Your task to perform on an android device: Show the shopping cart on walmart. Search for usb-a to usb-b on walmart, select the first entry, add it to the cart, then select checkout. Image 0: 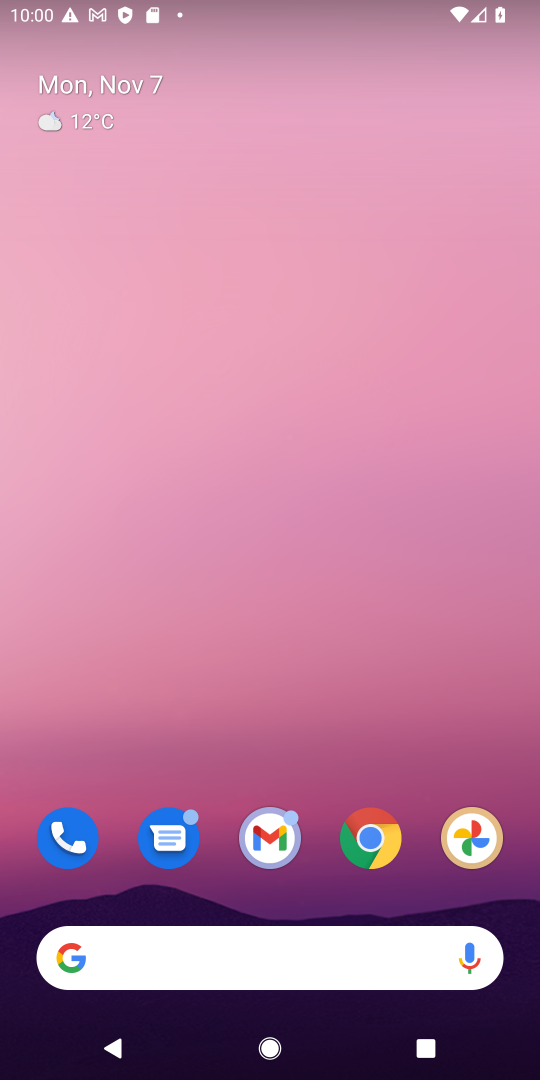
Step 0: click (372, 849)
Your task to perform on an android device: Show the shopping cart on walmart. Search for usb-a to usb-b on walmart, select the first entry, add it to the cart, then select checkout. Image 1: 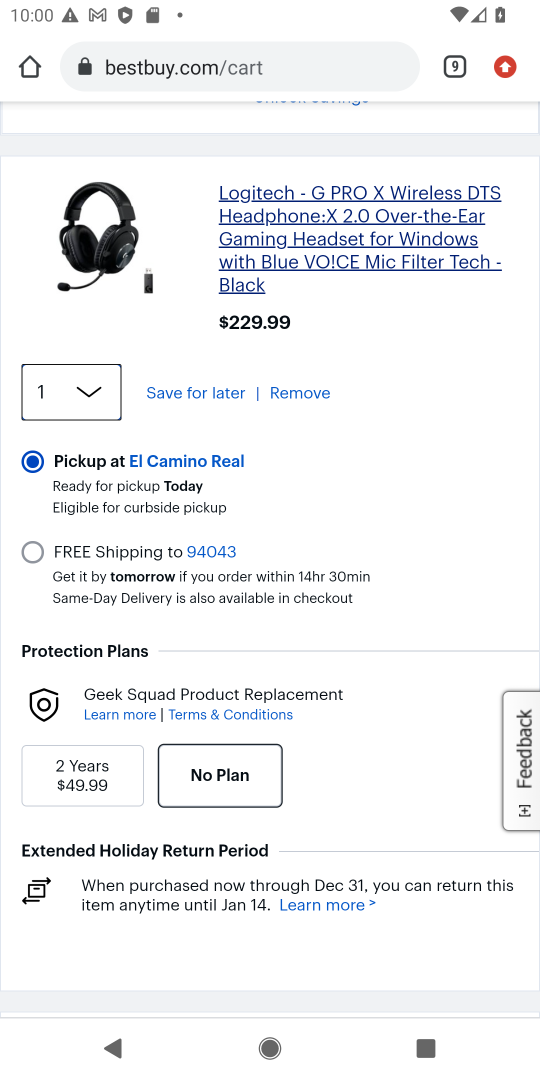
Step 1: click (447, 54)
Your task to perform on an android device: Show the shopping cart on walmart. Search for usb-a to usb-b on walmart, select the first entry, add it to the cart, then select checkout. Image 2: 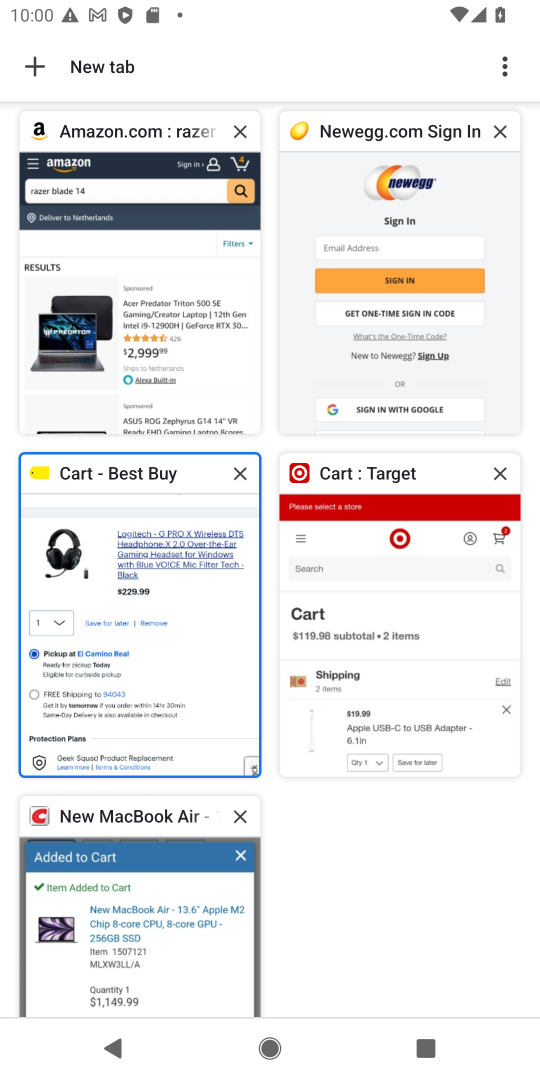
Step 2: drag from (258, 271) to (212, 792)
Your task to perform on an android device: Show the shopping cart on walmart. Search for usb-a to usb-b on walmart, select the first entry, add it to the cart, then select checkout. Image 3: 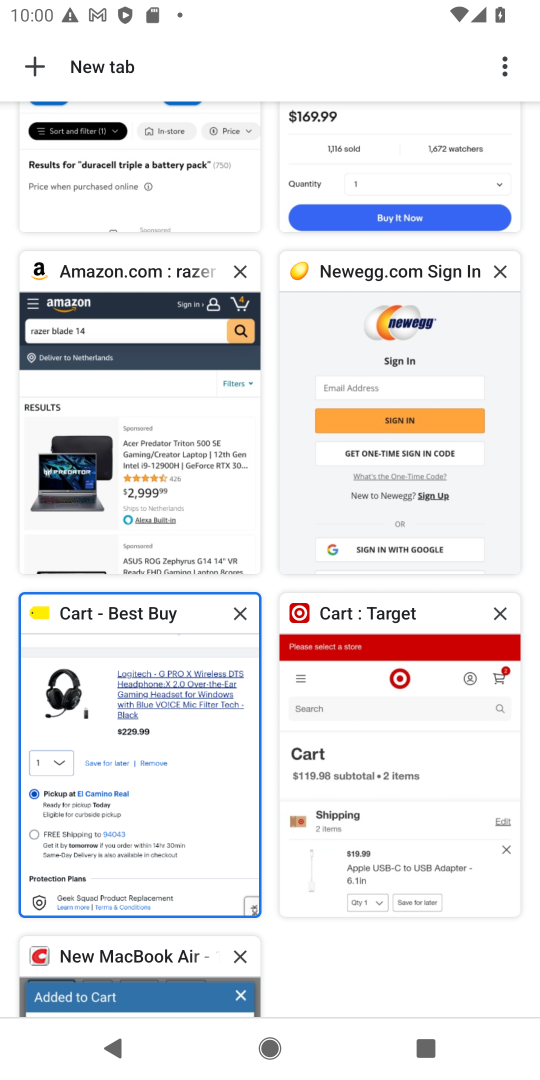
Step 3: drag from (322, 299) to (276, 971)
Your task to perform on an android device: Show the shopping cart on walmart. Search for usb-a to usb-b on walmart, select the first entry, add it to the cart, then select checkout. Image 4: 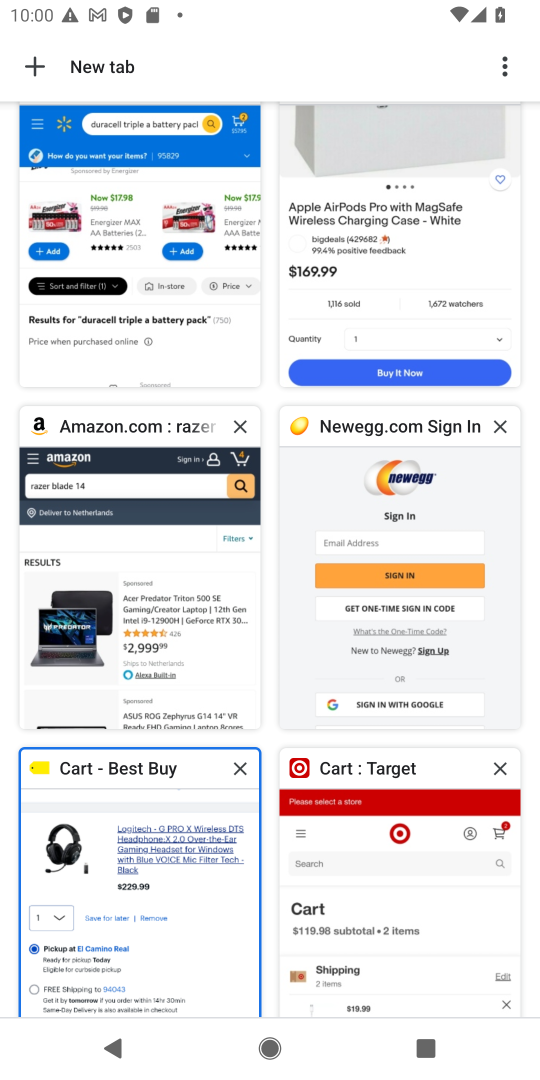
Step 4: drag from (487, 369) to (448, 871)
Your task to perform on an android device: Show the shopping cart on walmart. Search for usb-a to usb-b on walmart, select the first entry, add it to the cart, then select checkout. Image 5: 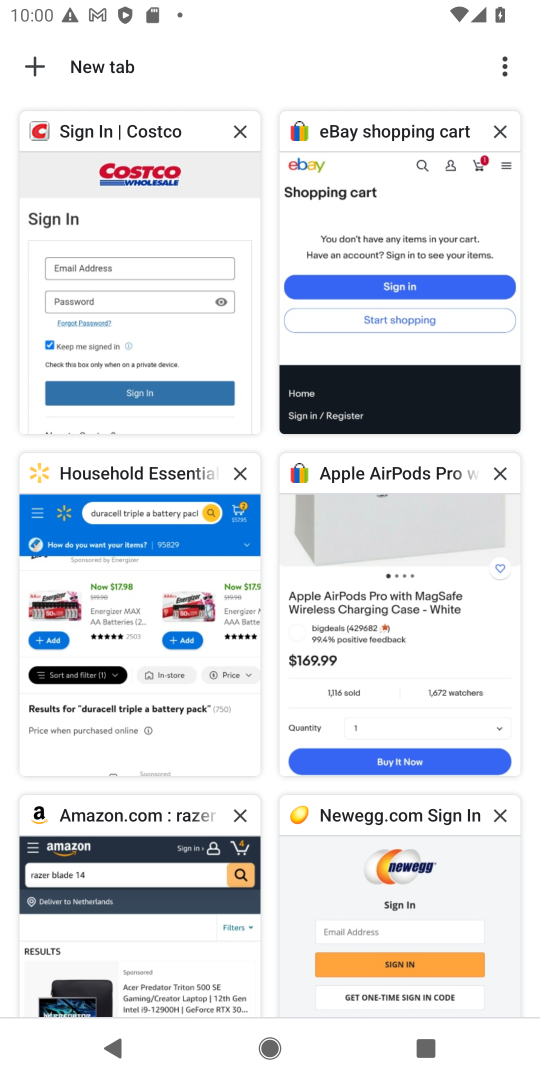
Step 5: click (157, 570)
Your task to perform on an android device: Show the shopping cart on walmart. Search for usb-a to usb-b on walmart, select the first entry, add it to the cart, then select checkout. Image 6: 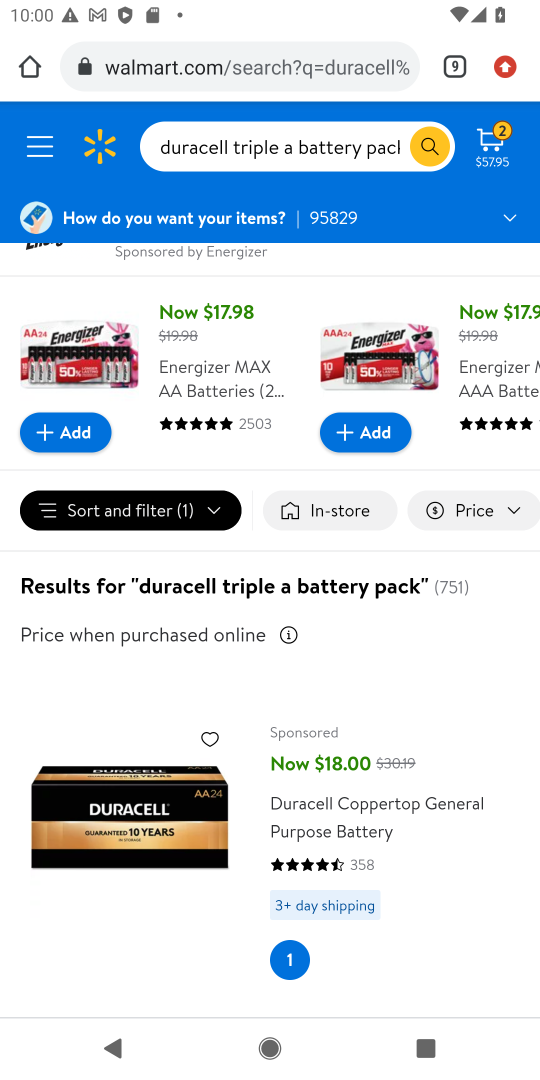
Step 6: click (363, 157)
Your task to perform on an android device: Show the shopping cart on walmart. Search for usb-a to usb-b on walmart, select the first entry, add it to the cart, then select checkout. Image 7: 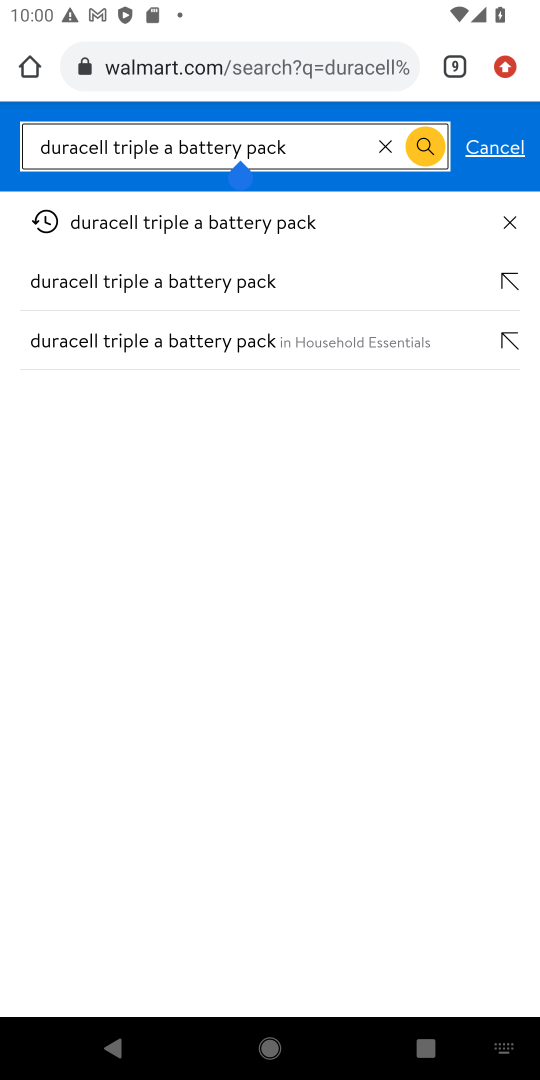
Step 7: click (386, 148)
Your task to perform on an android device: Show the shopping cart on walmart. Search for usb-a to usb-b on walmart, select the first entry, add it to the cart, then select checkout. Image 8: 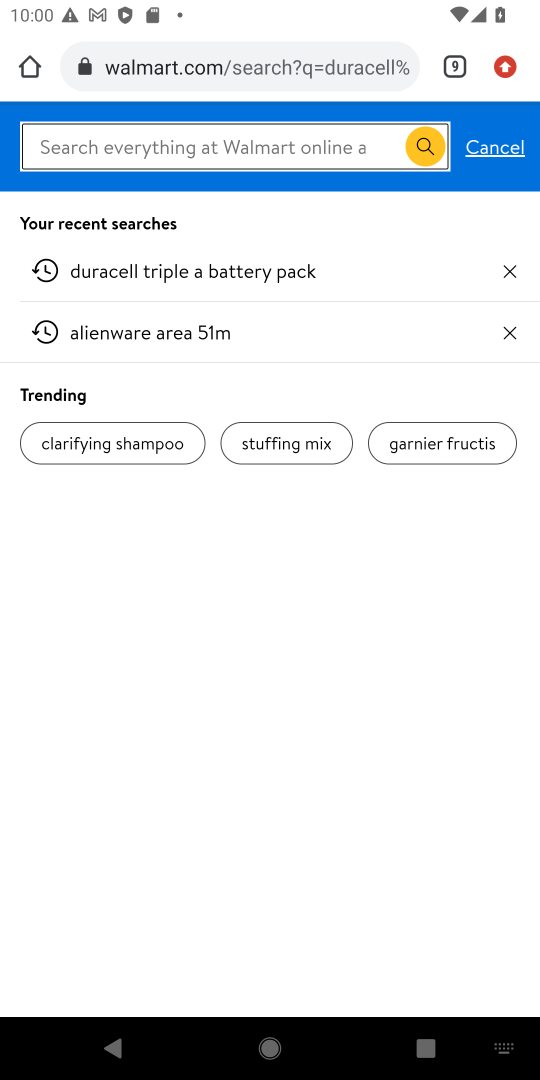
Step 8: type "usb-a to usb-b"
Your task to perform on an android device: Show the shopping cart on walmart. Search for usb-a to usb-b on walmart, select the first entry, add it to the cart, then select checkout. Image 9: 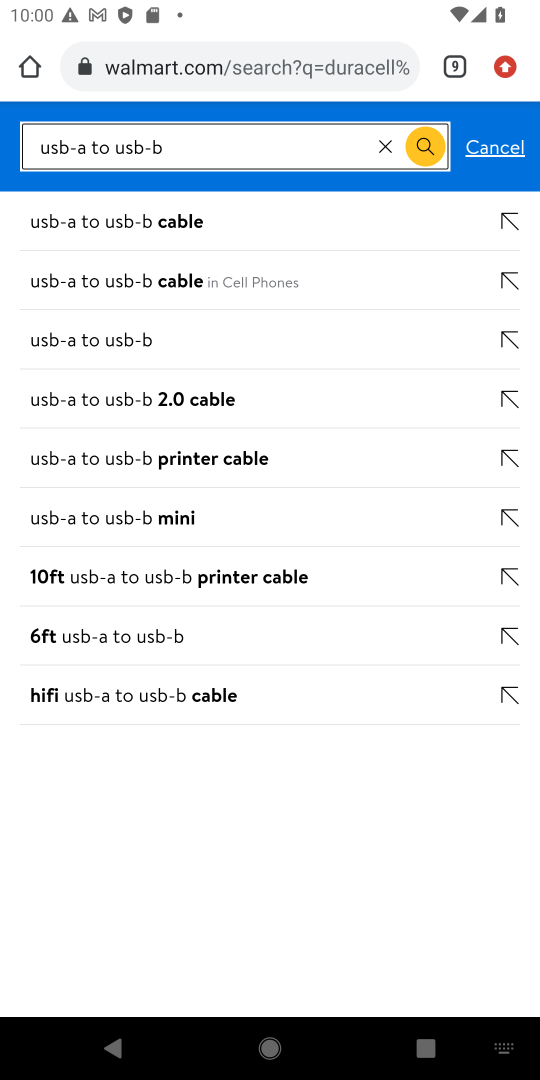
Step 9: click (47, 277)
Your task to perform on an android device: Show the shopping cart on walmart. Search for usb-a to usb-b on walmart, select the first entry, add it to the cart, then select checkout. Image 10: 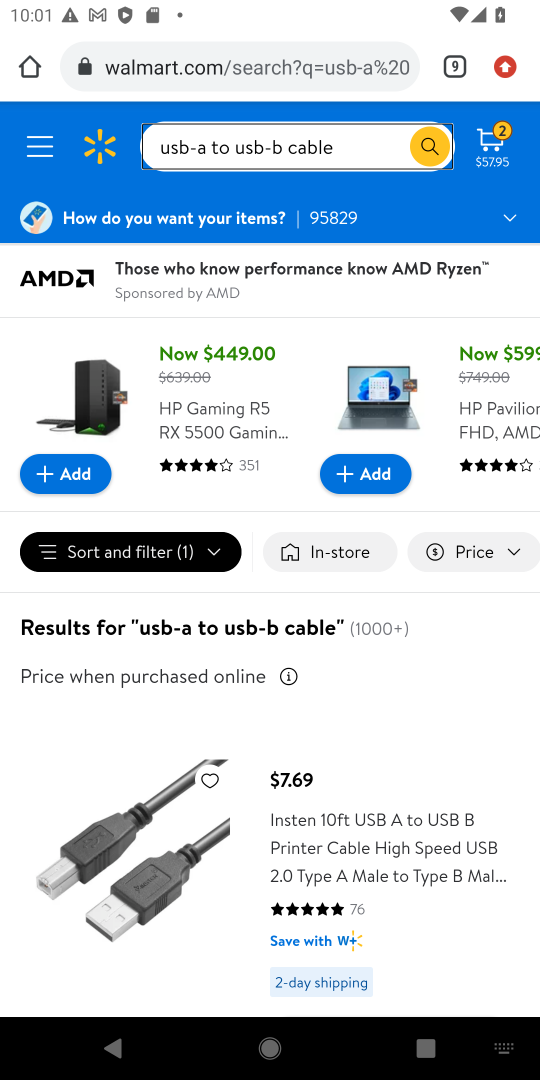
Step 10: drag from (459, 878) to (501, 367)
Your task to perform on an android device: Show the shopping cart on walmart. Search for usb-a to usb-b on walmart, select the first entry, add it to the cart, then select checkout. Image 11: 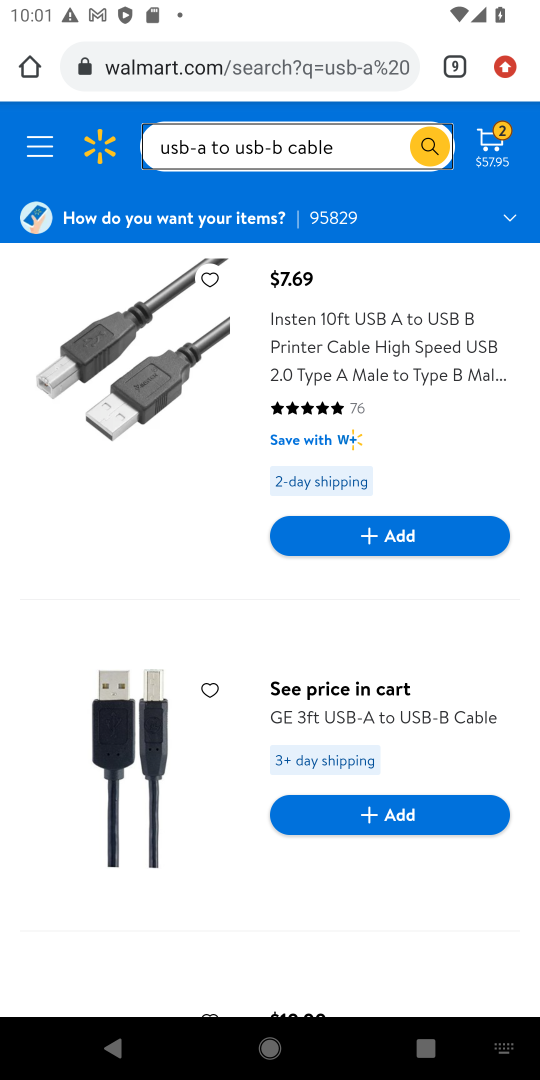
Step 11: click (342, 533)
Your task to perform on an android device: Show the shopping cart on walmart. Search for usb-a to usb-b on walmart, select the first entry, add it to the cart, then select checkout. Image 12: 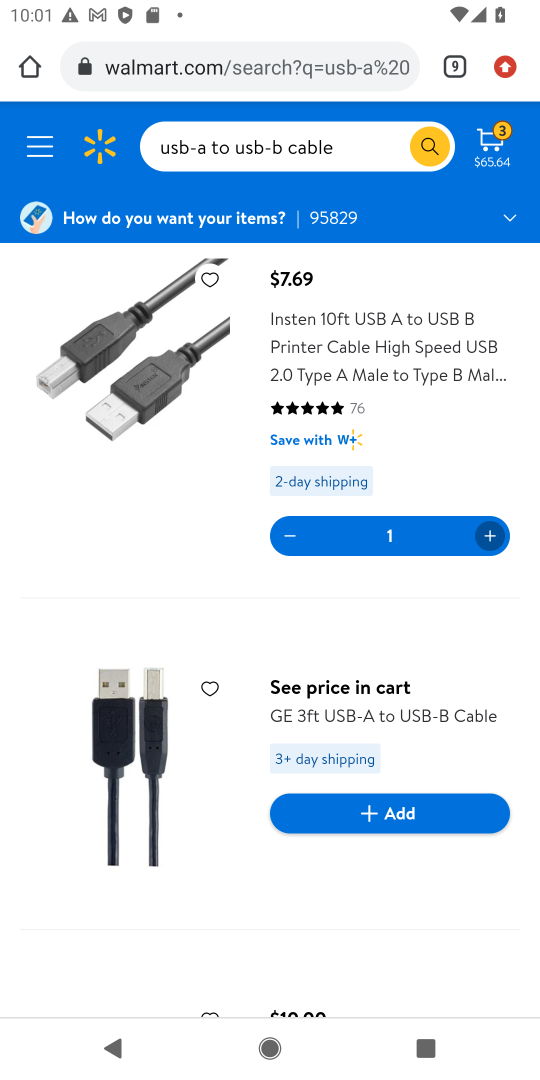
Step 12: task complete